Your task to perform on an android device: Open accessibility settings Image 0: 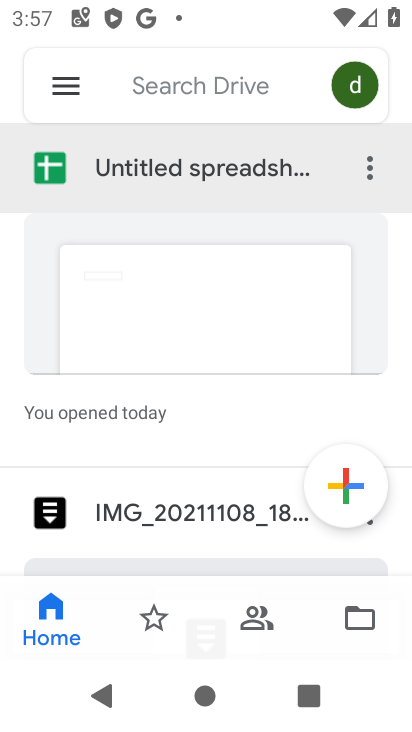
Step 0: press home button
Your task to perform on an android device: Open accessibility settings Image 1: 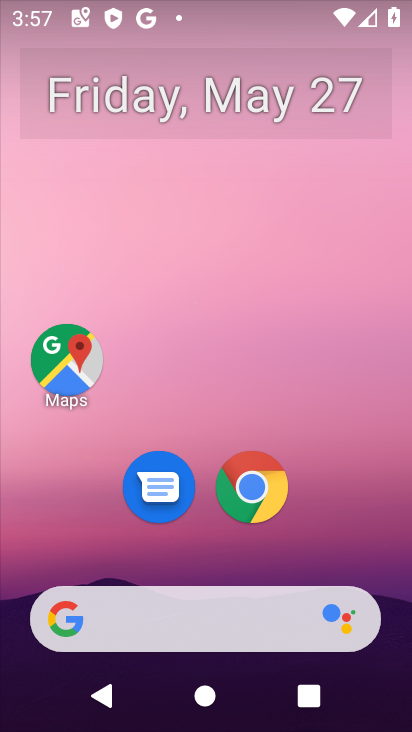
Step 1: drag from (346, 521) to (367, 61)
Your task to perform on an android device: Open accessibility settings Image 2: 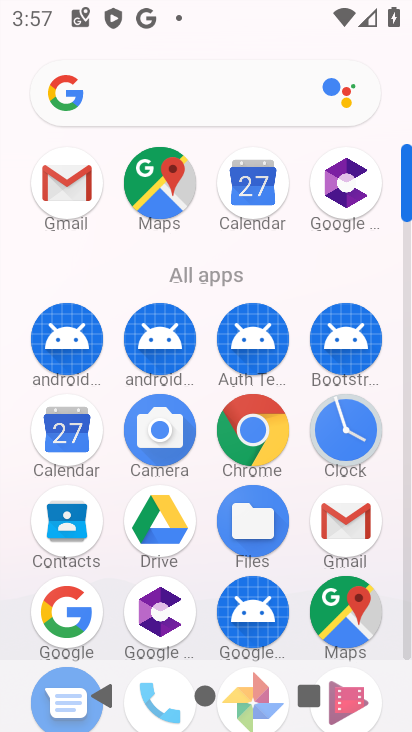
Step 2: drag from (303, 490) to (336, 191)
Your task to perform on an android device: Open accessibility settings Image 3: 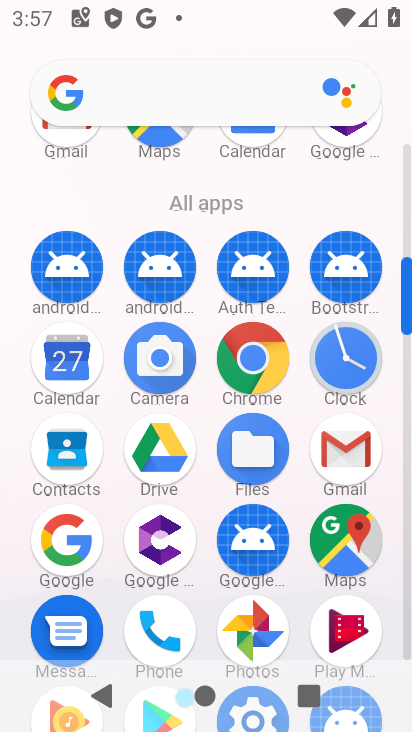
Step 3: drag from (289, 601) to (294, 263)
Your task to perform on an android device: Open accessibility settings Image 4: 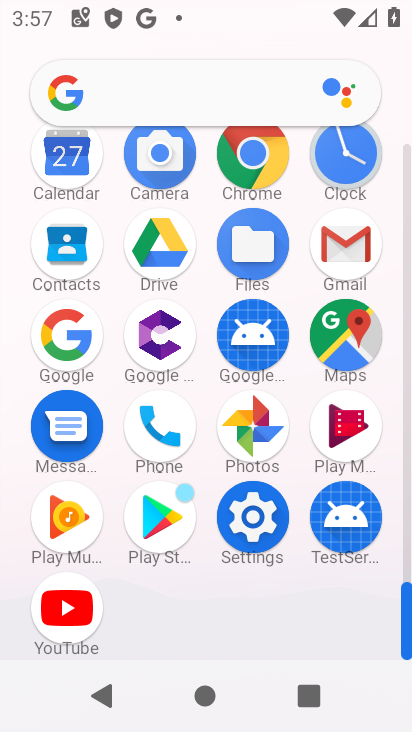
Step 4: click (261, 547)
Your task to perform on an android device: Open accessibility settings Image 5: 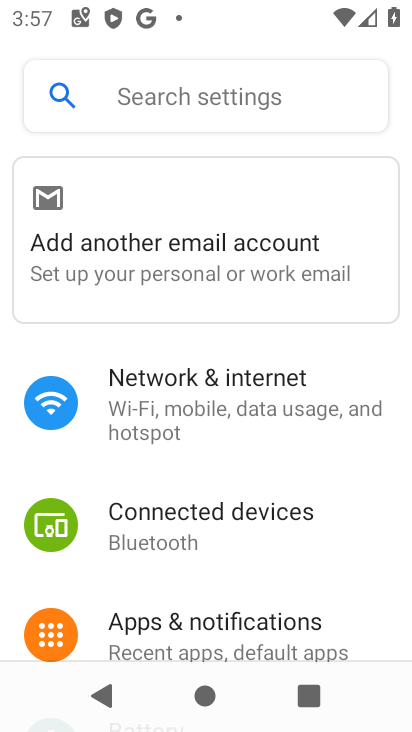
Step 5: drag from (257, 603) to (303, 125)
Your task to perform on an android device: Open accessibility settings Image 6: 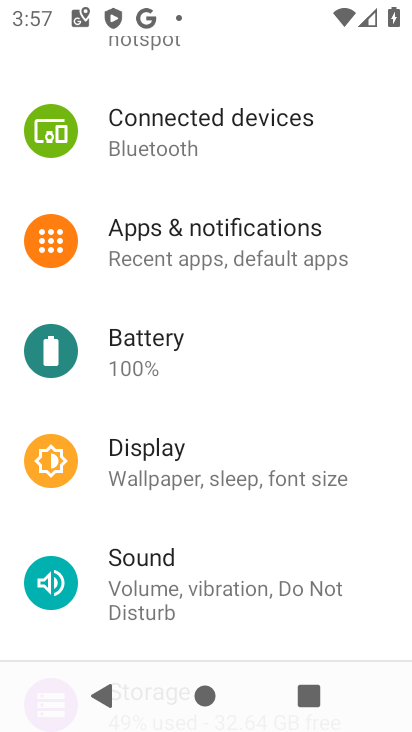
Step 6: drag from (243, 595) to (261, 110)
Your task to perform on an android device: Open accessibility settings Image 7: 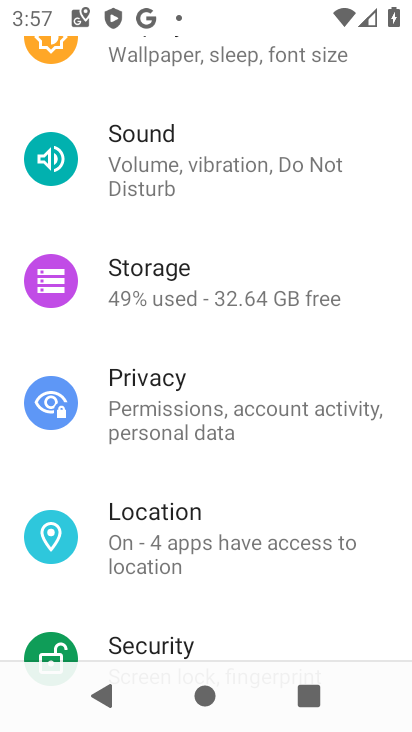
Step 7: drag from (234, 577) to (240, 142)
Your task to perform on an android device: Open accessibility settings Image 8: 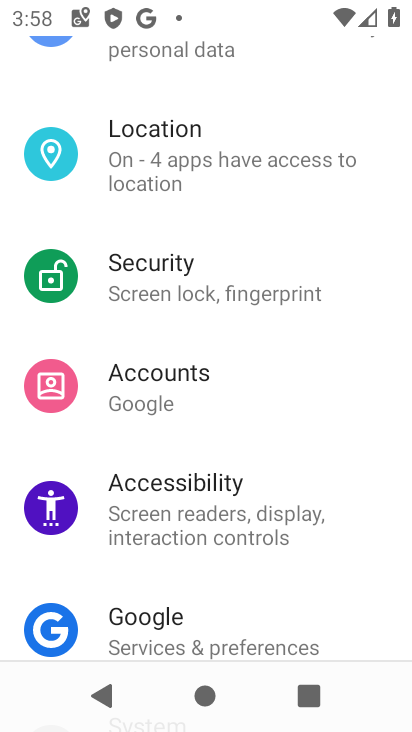
Step 8: click (185, 515)
Your task to perform on an android device: Open accessibility settings Image 9: 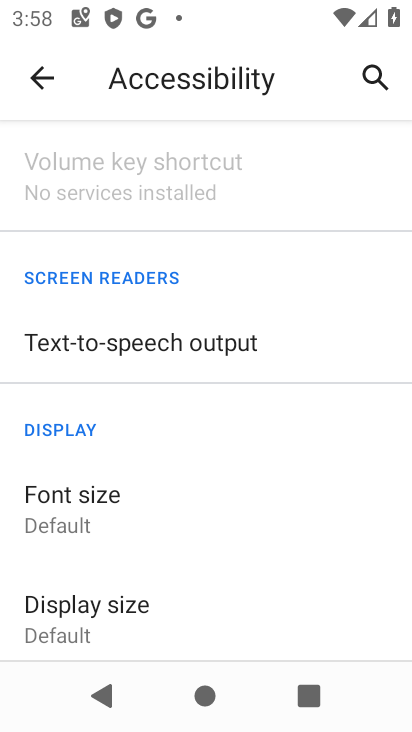
Step 9: task complete